Your task to perform on an android device: turn off location Image 0: 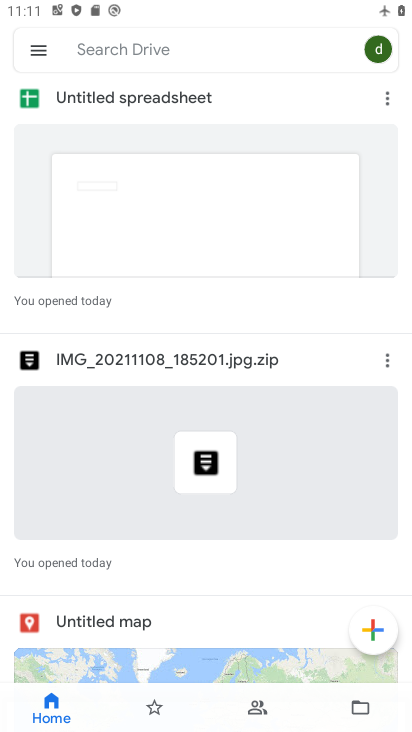
Step 0: press home button
Your task to perform on an android device: turn off location Image 1: 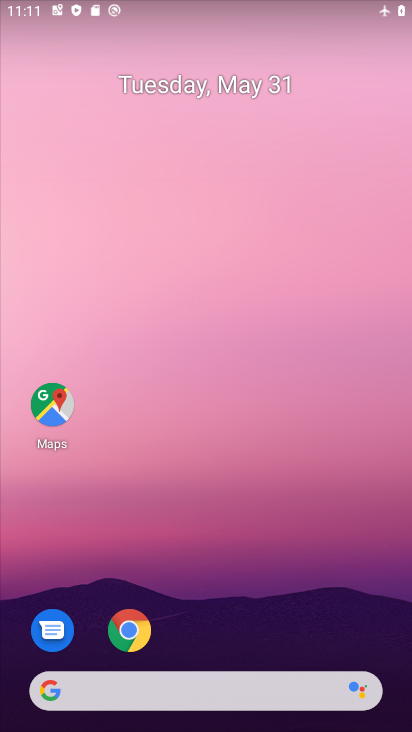
Step 1: drag from (246, 659) to (275, 83)
Your task to perform on an android device: turn off location Image 2: 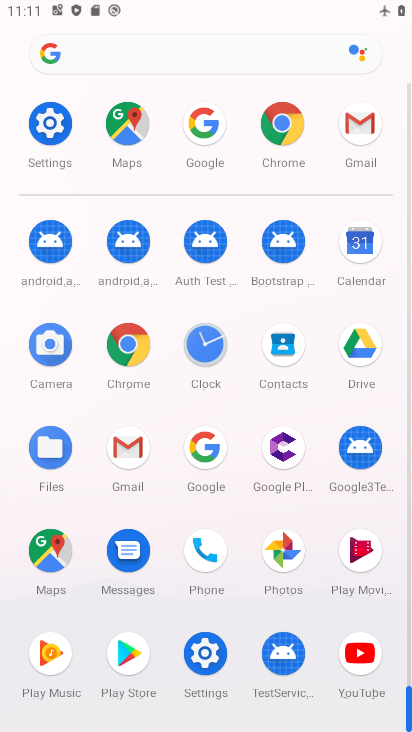
Step 2: click (55, 145)
Your task to perform on an android device: turn off location Image 3: 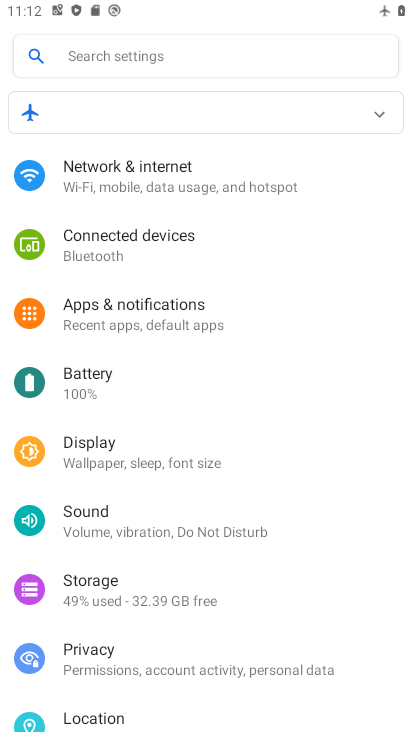
Step 3: drag from (156, 450) to (181, 289)
Your task to perform on an android device: turn off location Image 4: 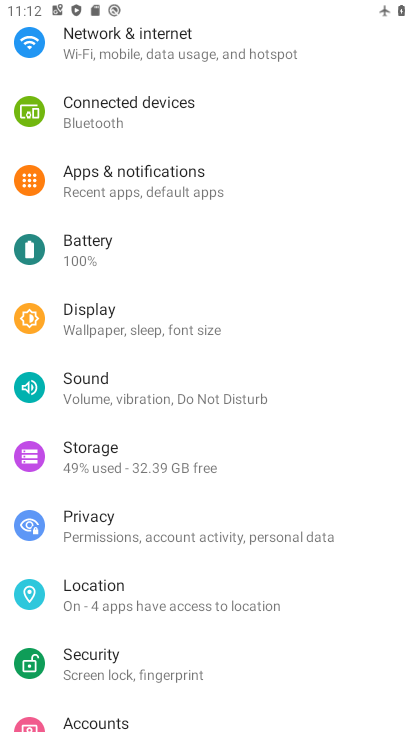
Step 4: click (132, 586)
Your task to perform on an android device: turn off location Image 5: 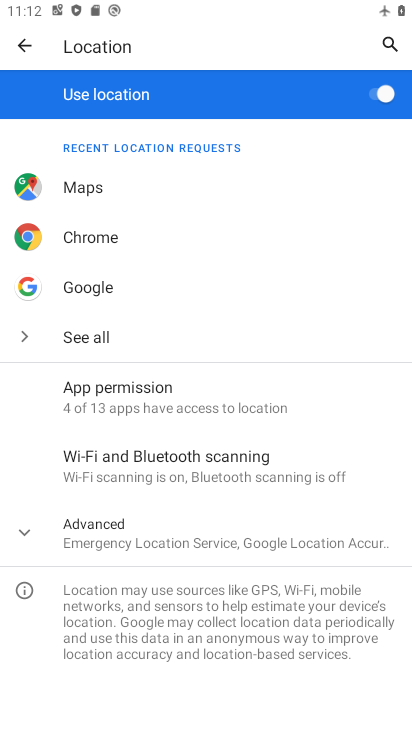
Step 5: click (373, 103)
Your task to perform on an android device: turn off location Image 6: 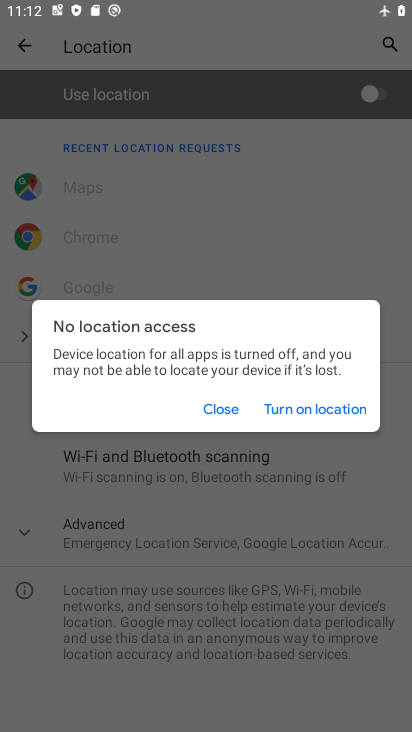
Step 6: click (213, 408)
Your task to perform on an android device: turn off location Image 7: 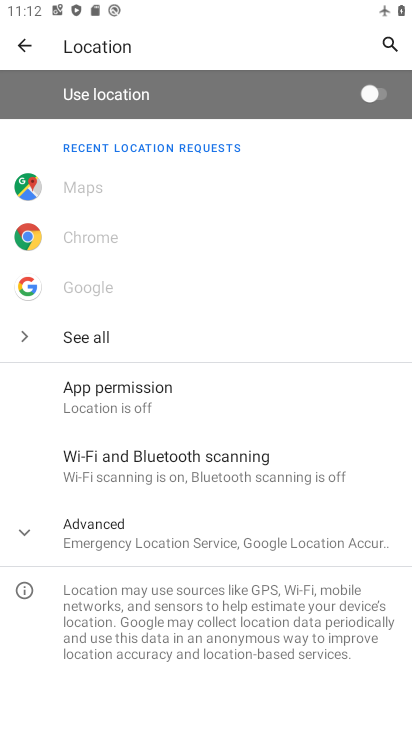
Step 7: task complete